Your task to perform on an android device: add a contact Image 0: 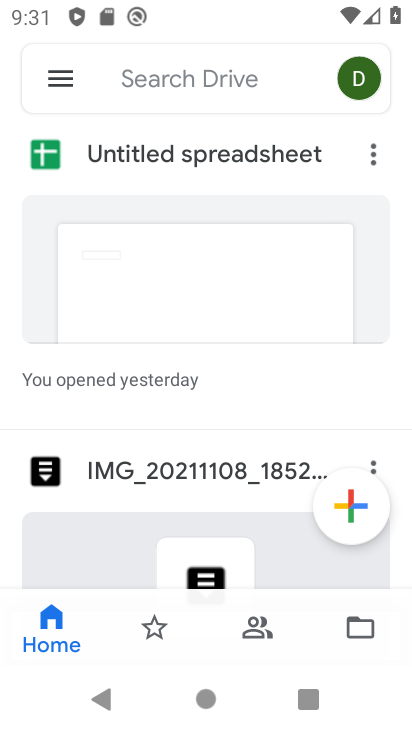
Step 0: press home button
Your task to perform on an android device: add a contact Image 1: 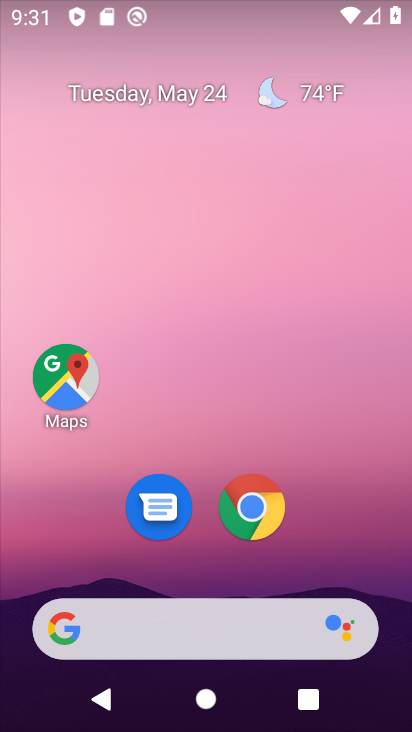
Step 1: drag from (233, 722) to (233, 112)
Your task to perform on an android device: add a contact Image 2: 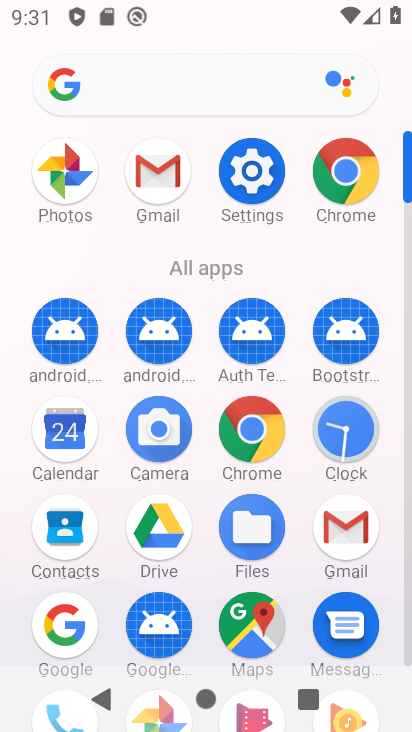
Step 2: click (52, 533)
Your task to perform on an android device: add a contact Image 3: 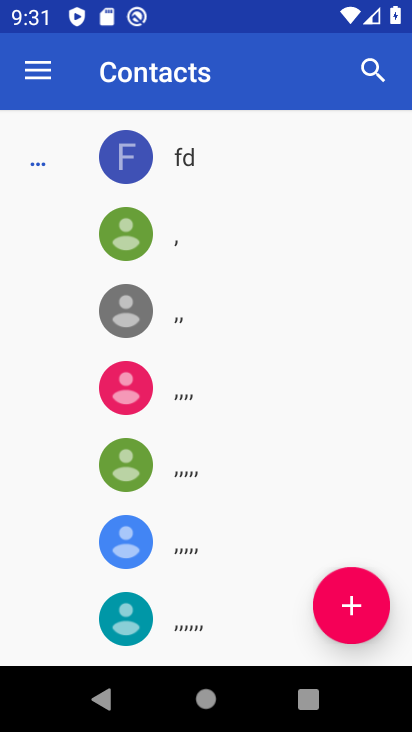
Step 3: click (358, 606)
Your task to perform on an android device: add a contact Image 4: 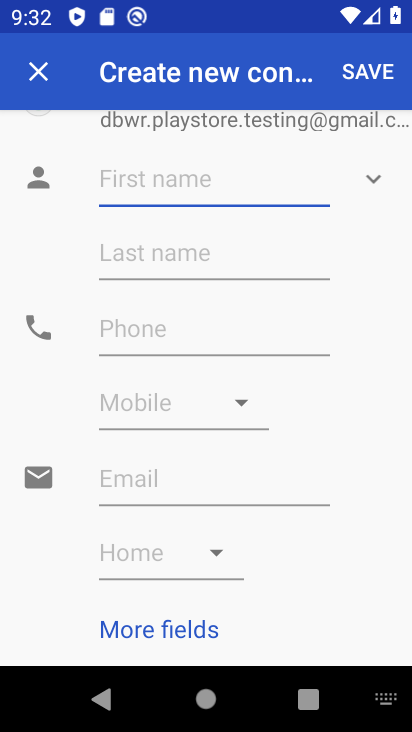
Step 4: type "yamraj"
Your task to perform on an android device: add a contact Image 5: 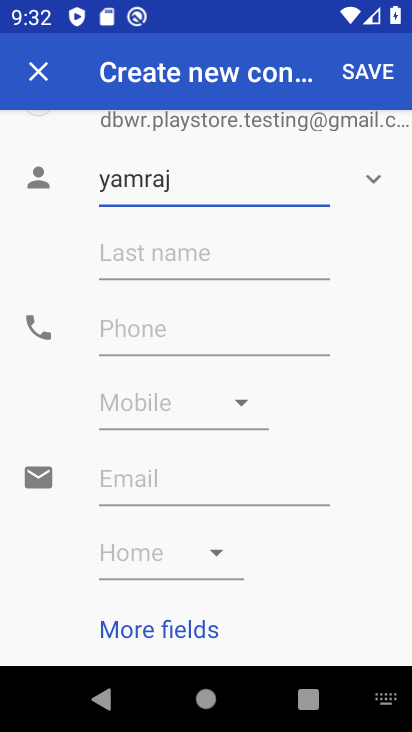
Step 5: click (135, 331)
Your task to perform on an android device: add a contact Image 6: 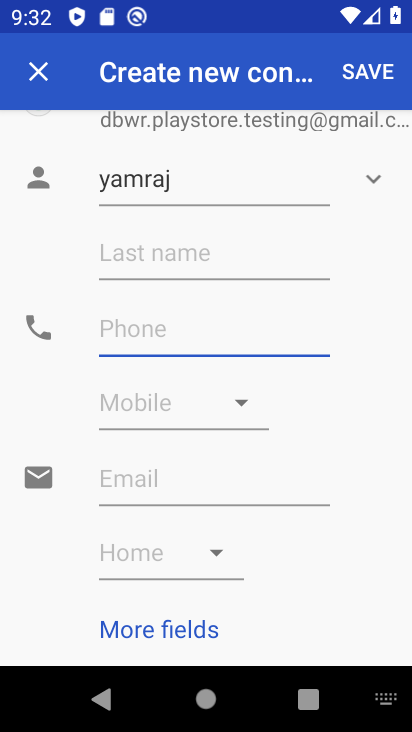
Step 6: type "88787"
Your task to perform on an android device: add a contact Image 7: 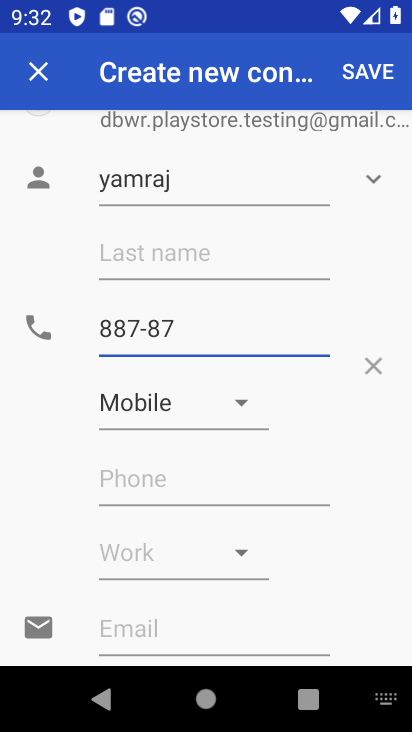
Step 7: click (372, 66)
Your task to perform on an android device: add a contact Image 8: 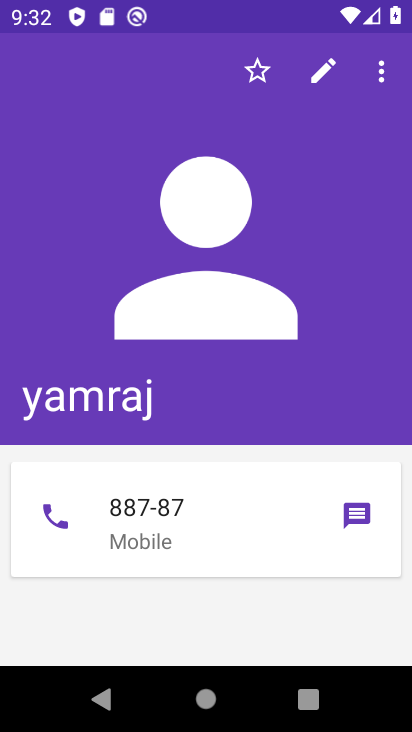
Step 8: task complete